Your task to perform on an android device: delete the emails in spam in the gmail app Image 0: 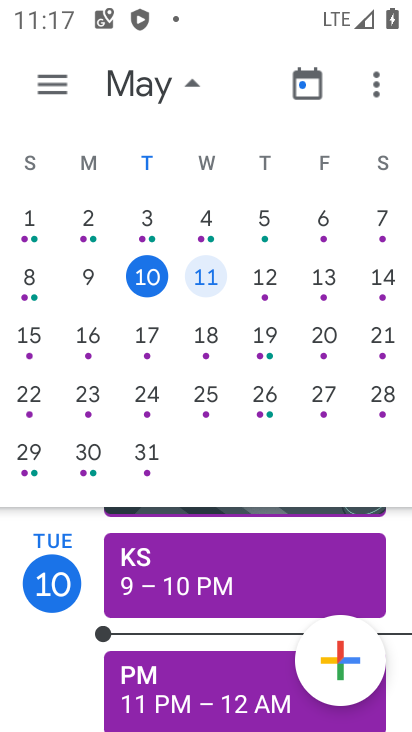
Step 0: press home button
Your task to perform on an android device: delete the emails in spam in the gmail app Image 1: 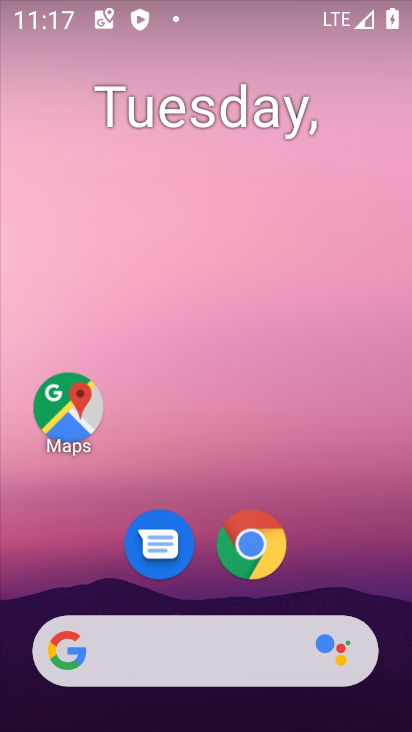
Step 1: drag from (377, 630) to (282, 77)
Your task to perform on an android device: delete the emails in spam in the gmail app Image 2: 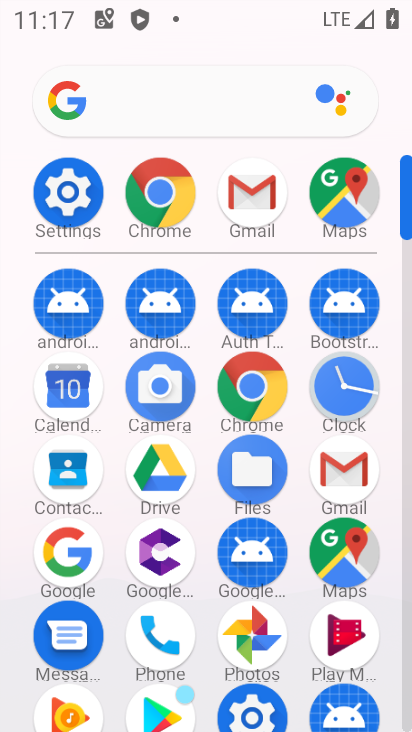
Step 2: click (264, 210)
Your task to perform on an android device: delete the emails in spam in the gmail app Image 3: 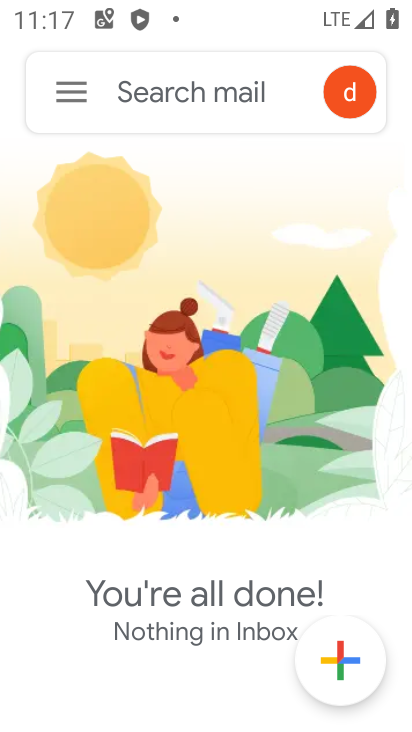
Step 3: click (54, 99)
Your task to perform on an android device: delete the emails in spam in the gmail app Image 4: 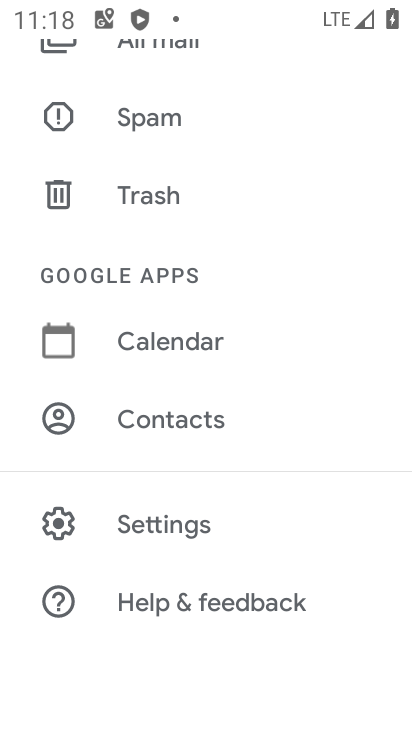
Step 4: click (235, 128)
Your task to perform on an android device: delete the emails in spam in the gmail app Image 5: 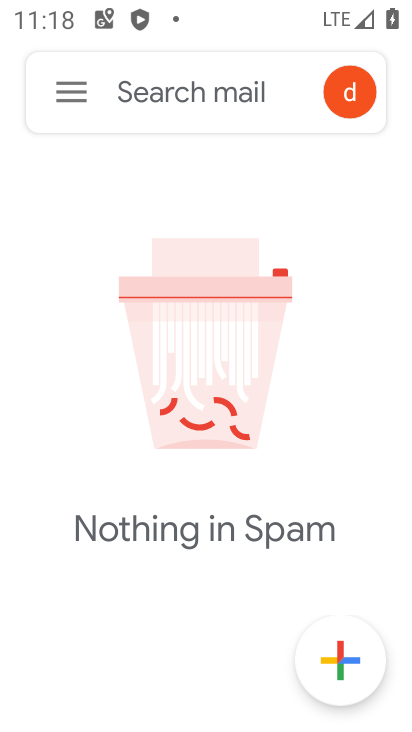
Step 5: task complete